Your task to perform on an android device: toggle notification dots Image 0: 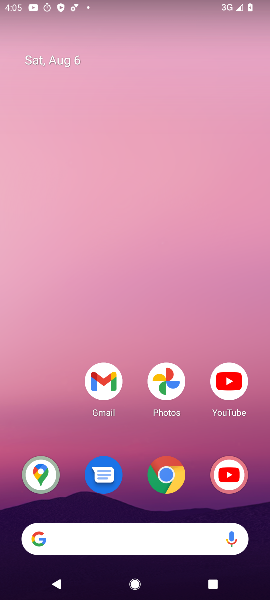
Step 0: drag from (39, 567) to (226, 149)
Your task to perform on an android device: toggle notification dots Image 1: 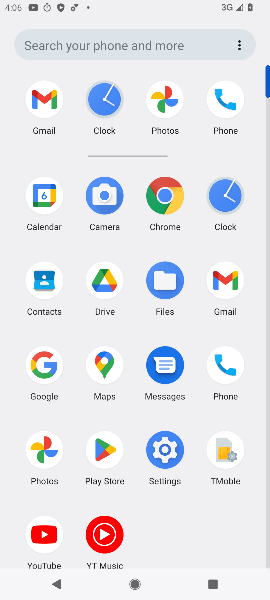
Step 1: click (165, 441)
Your task to perform on an android device: toggle notification dots Image 2: 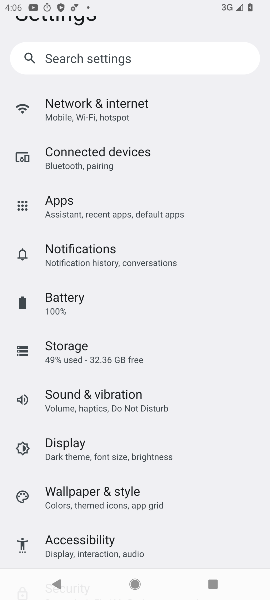
Step 2: click (136, 250)
Your task to perform on an android device: toggle notification dots Image 3: 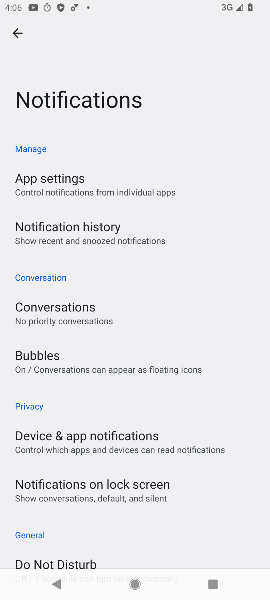
Step 3: drag from (222, 546) to (140, 5)
Your task to perform on an android device: toggle notification dots Image 4: 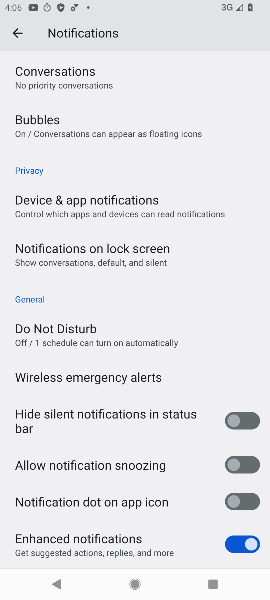
Step 4: click (239, 494)
Your task to perform on an android device: toggle notification dots Image 5: 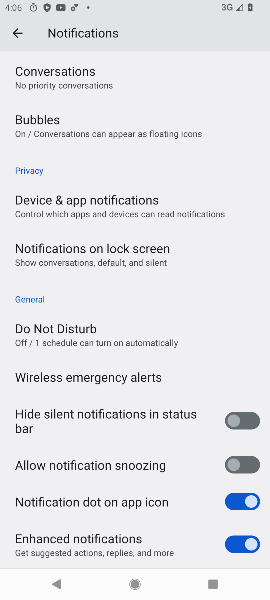
Step 5: task complete